Your task to perform on an android device: choose inbox layout in the gmail app Image 0: 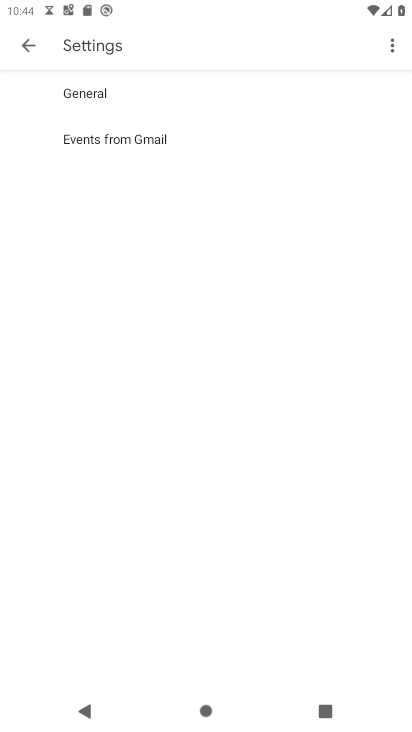
Step 0: press home button
Your task to perform on an android device: choose inbox layout in the gmail app Image 1: 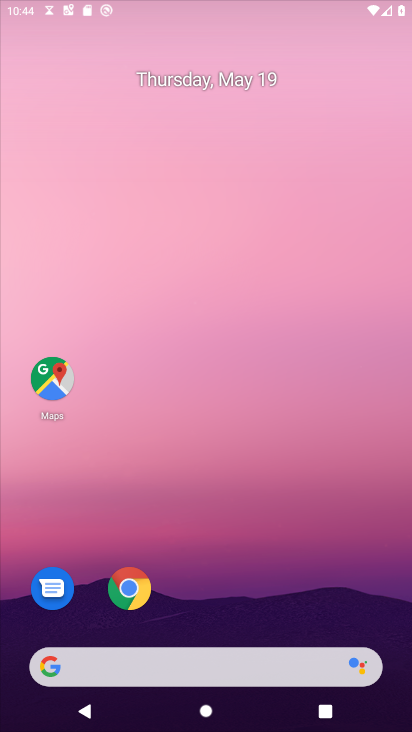
Step 1: drag from (311, 552) to (145, 11)
Your task to perform on an android device: choose inbox layout in the gmail app Image 2: 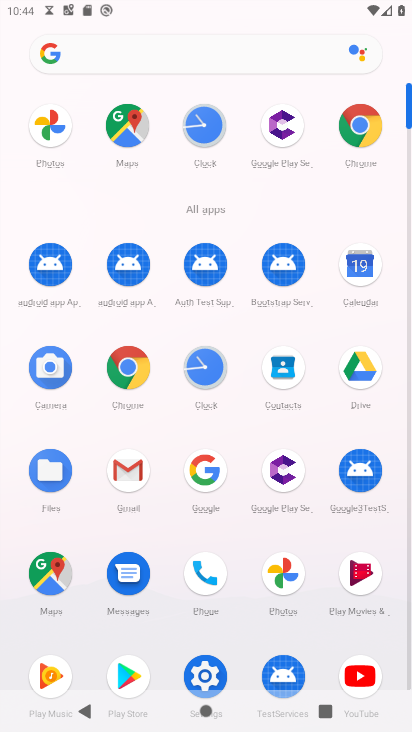
Step 2: click (131, 469)
Your task to perform on an android device: choose inbox layout in the gmail app Image 3: 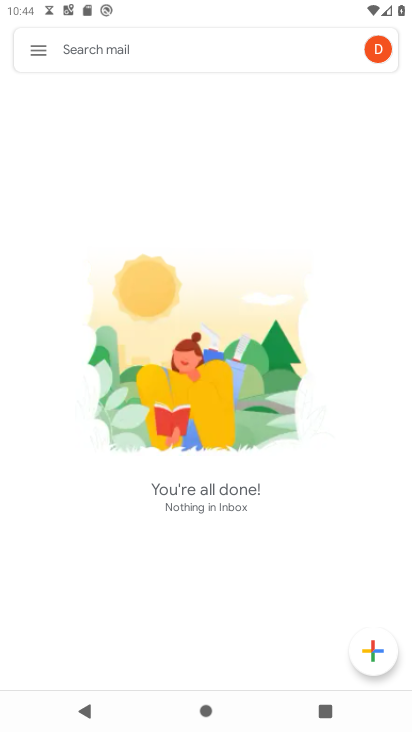
Step 3: click (39, 45)
Your task to perform on an android device: choose inbox layout in the gmail app Image 4: 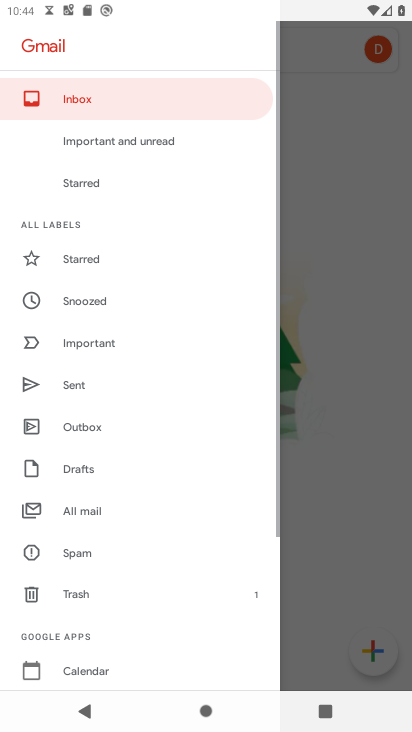
Step 4: drag from (144, 561) to (130, 114)
Your task to perform on an android device: choose inbox layout in the gmail app Image 5: 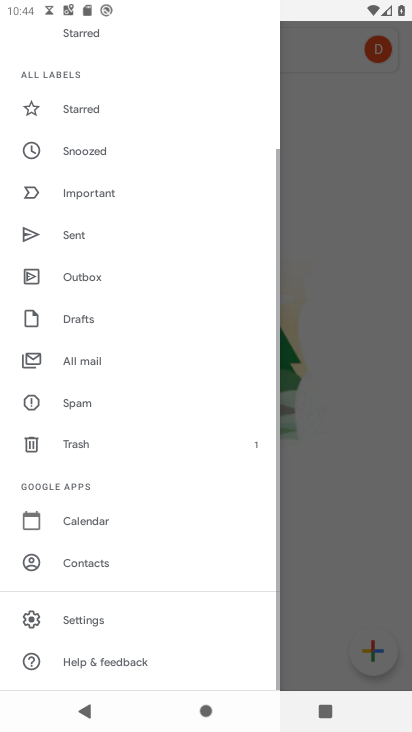
Step 5: click (114, 615)
Your task to perform on an android device: choose inbox layout in the gmail app Image 6: 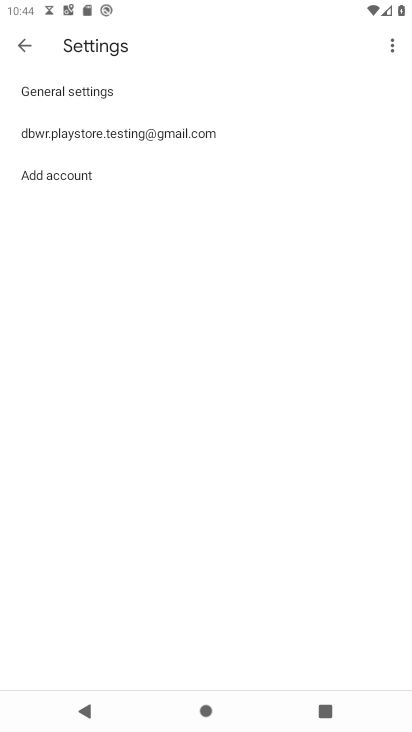
Step 6: click (165, 135)
Your task to perform on an android device: choose inbox layout in the gmail app Image 7: 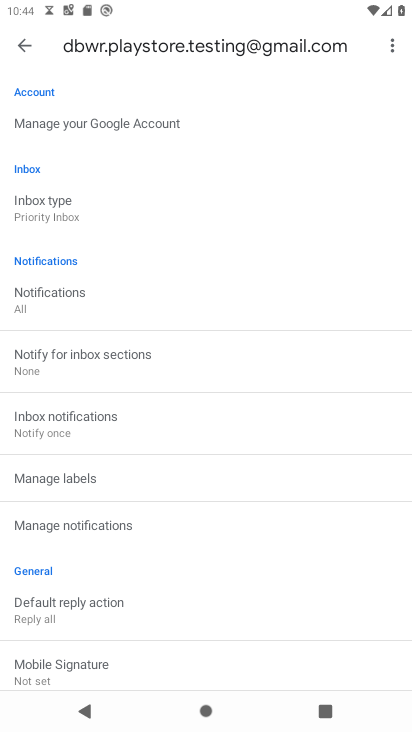
Step 7: click (78, 215)
Your task to perform on an android device: choose inbox layout in the gmail app Image 8: 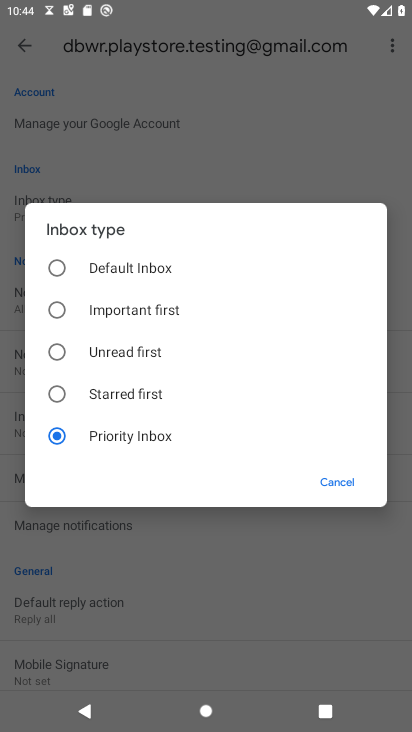
Step 8: click (148, 293)
Your task to perform on an android device: choose inbox layout in the gmail app Image 9: 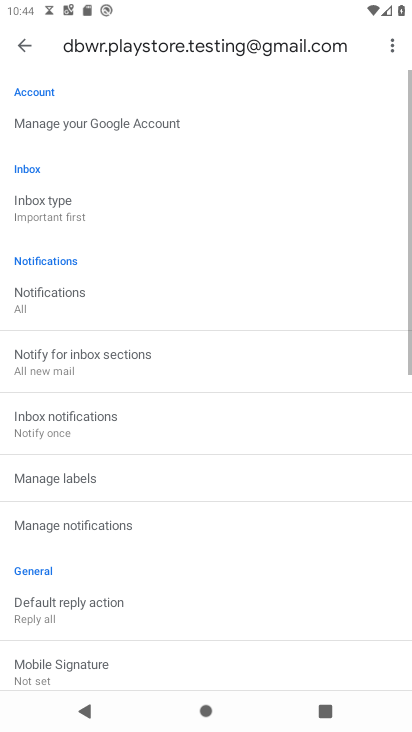
Step 9: task complete